Your task to perform on an android device: empty trash in the gmail app Image 0: 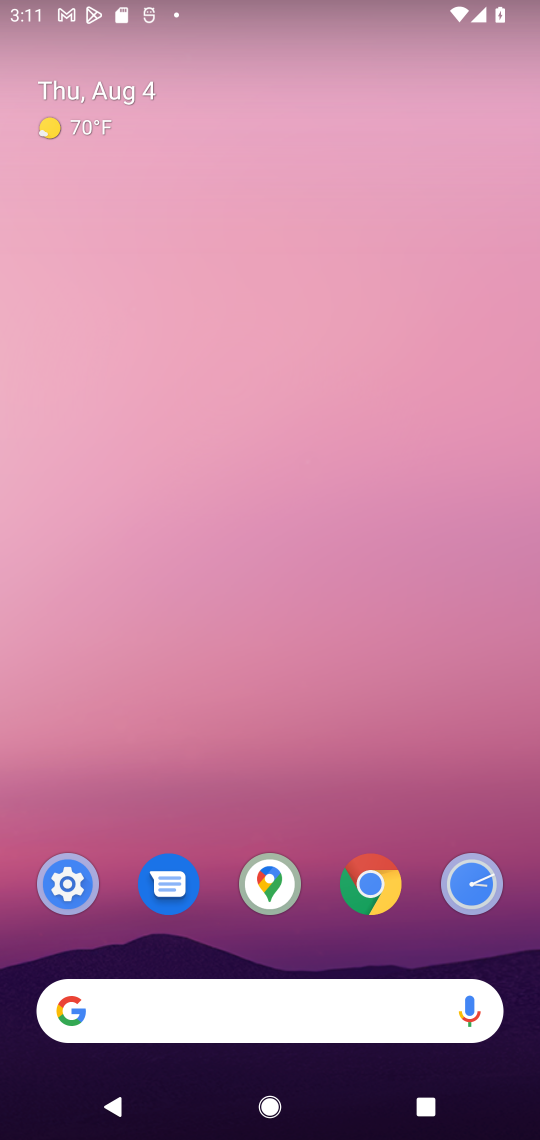
Step 0: drag from (310, 954) to (292, 186)
Your task to perform on an android device: empty trash in the gmail app Image 1: 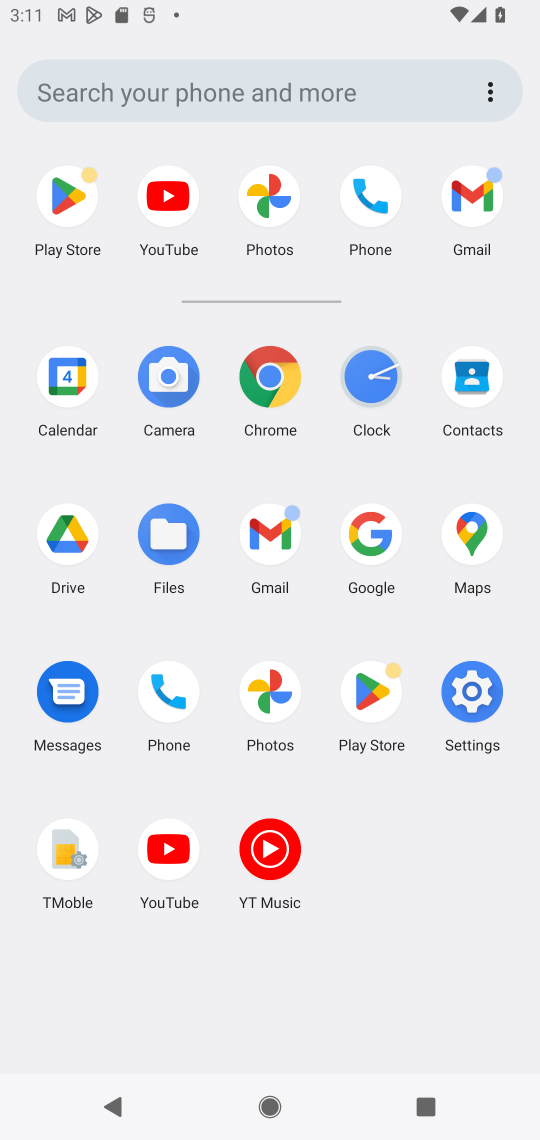
Step 1: click (483, 222)
Your task to perform on an android device: empty trash in the gmail app Image 2: 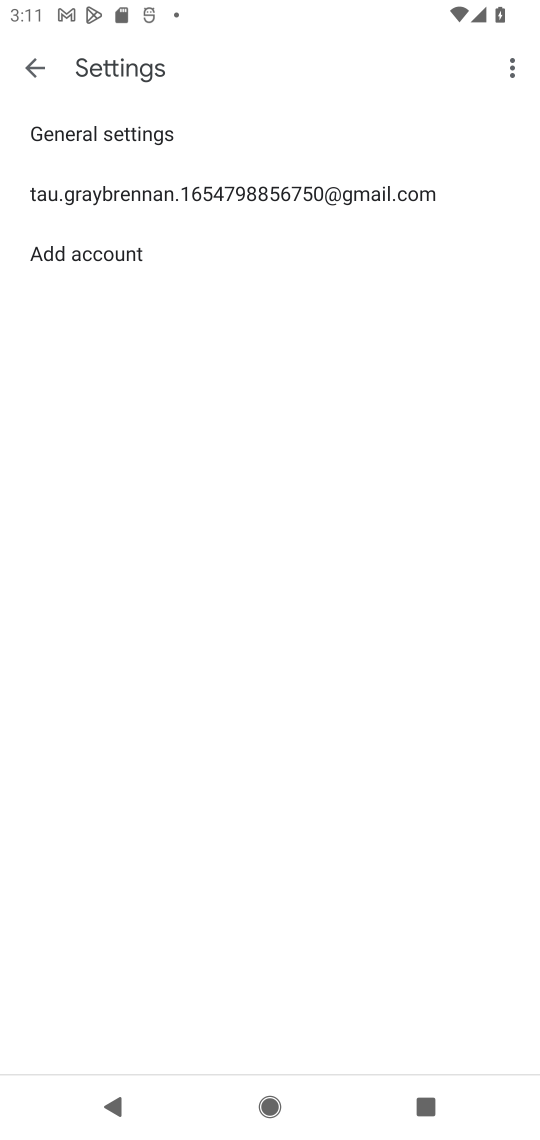
Step 2: click (28, 69)
Your task to perform on an android device: empty trash in the gmail app Image 3: 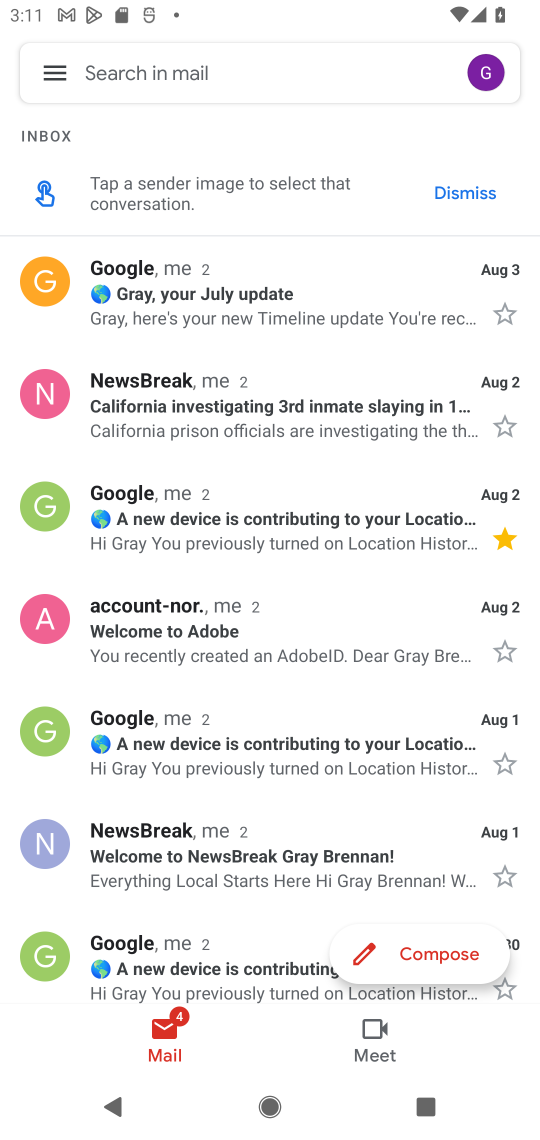
Step 3: click (28, 69)
Your task to perform on an android device: empty trash in the gmail app Image 4: 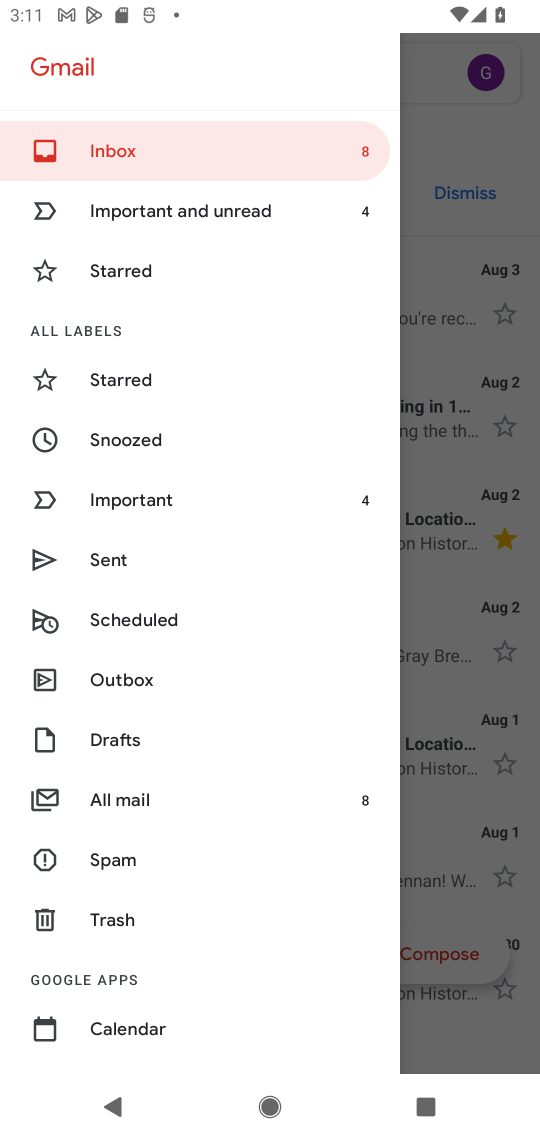
Step 4: click (211, 911)
Your task to perform on an android device: empty trash in the gmail app Image 5: 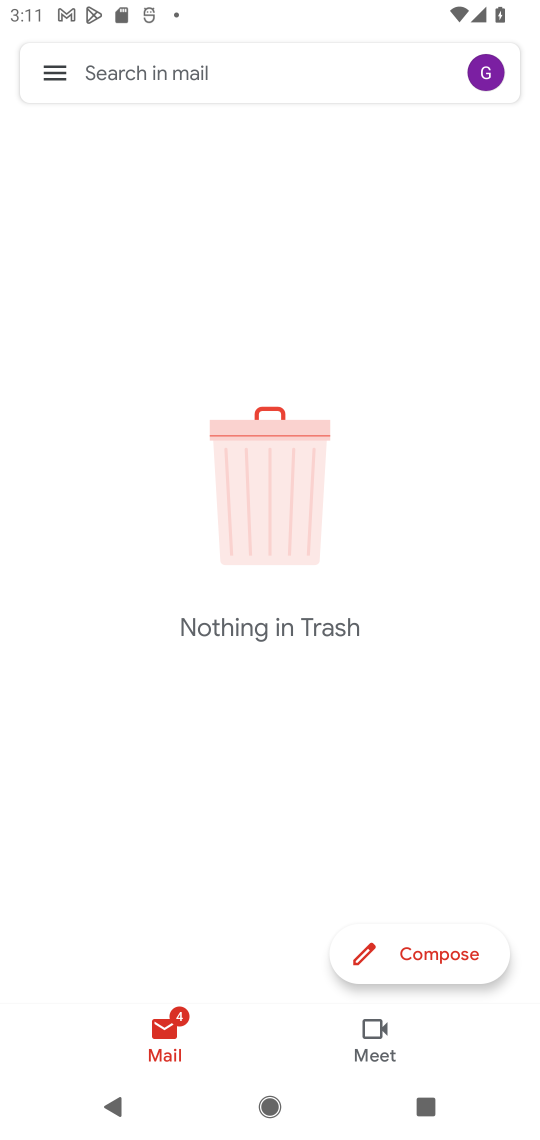
Step 5: task complete